Your task to perform on an android device: Open ESPN.com Image 0: 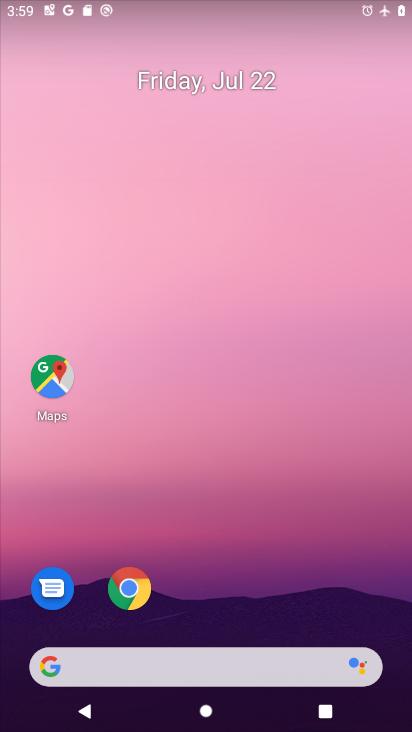
Step 0: drag from (250, 628) to (308, 82)
Your task to perform on an android device: Open ESPN.com Image 1: 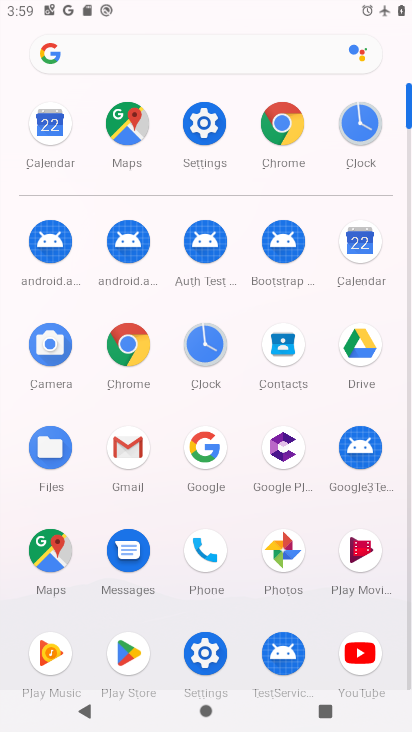
Step 1: click (281, 115)
Your task to perform on an android device: Open ESPN.com Image 2: 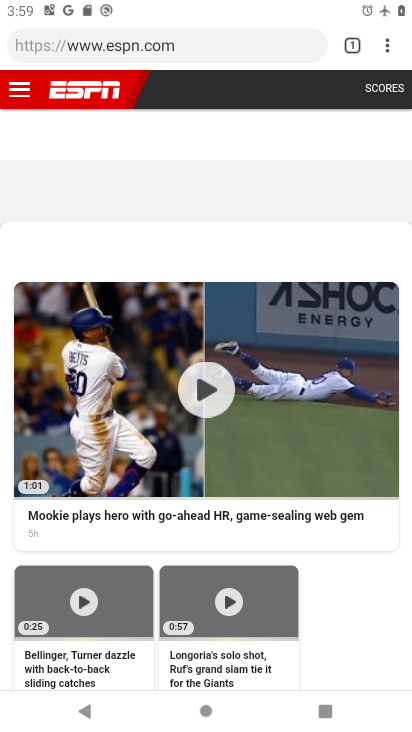
Step 2: drag from (334, 0) to (229, 474)
Your task to perform on an android device: Open ESPN.com Image 3: 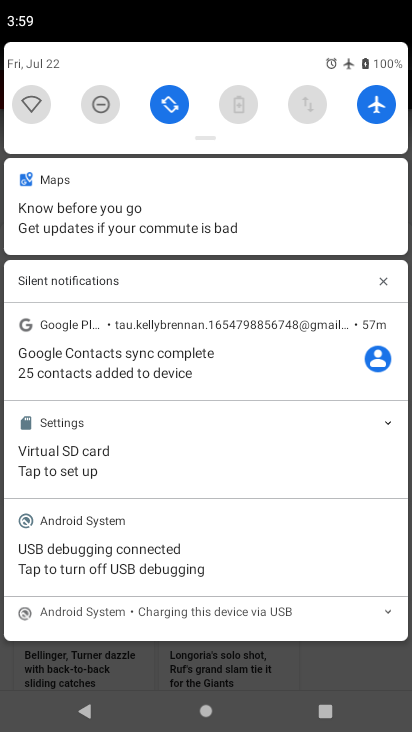
Step 3: click (386, 96)
Your task to perform on an android device: Open ESPN.com Image 4: 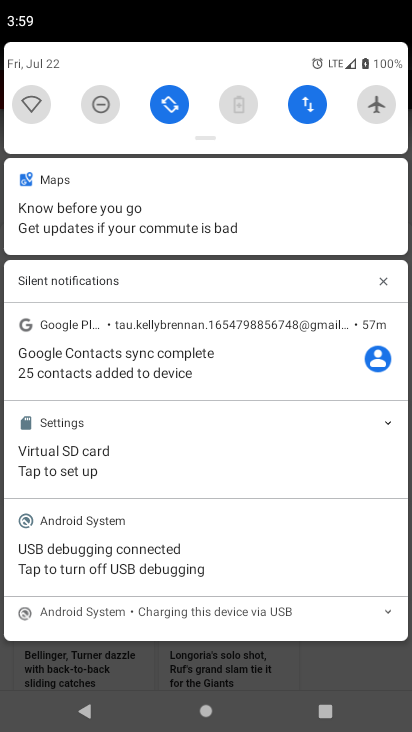
Step 4: click (357, 652)
Your task to perform on an android device: Open ESPN.com Image 5: 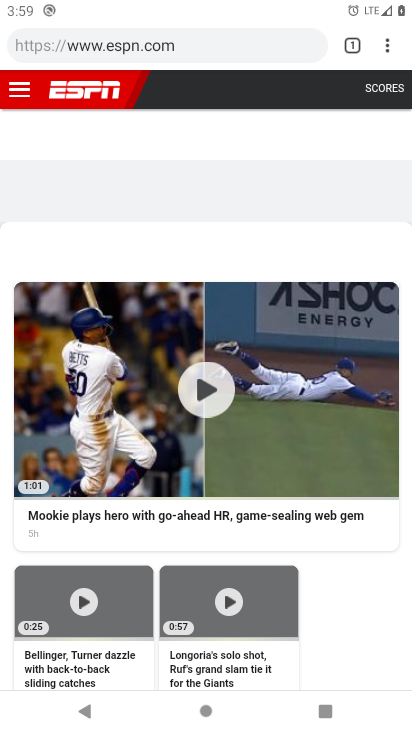
Step 5: task complete